Your task to perform on an android device: empty trash in the gmail app Image 0: 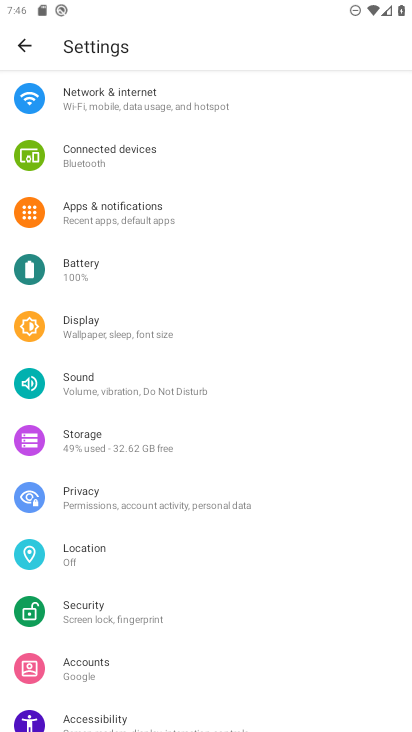
Step 0: press home button
Your task to perform on an android device: empty trash in the gmail app Image 1: 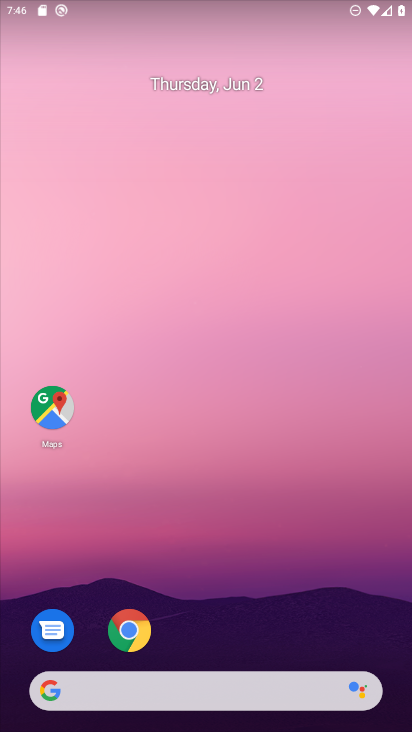
Step 1: drag from (148, 727) to (182, 75)
Your task to perform on an android device: empty trash in the gmail app Image 2: 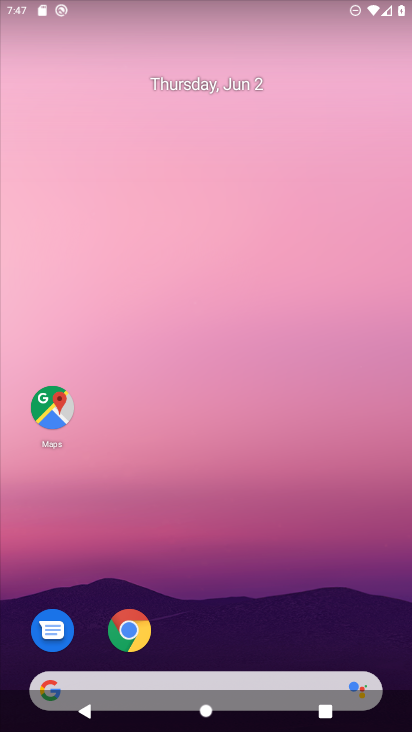
Step 2: drag from (133, 729) to (150, 2)
Your task to perform on an android device: empty trash in the gmail app Image 3: 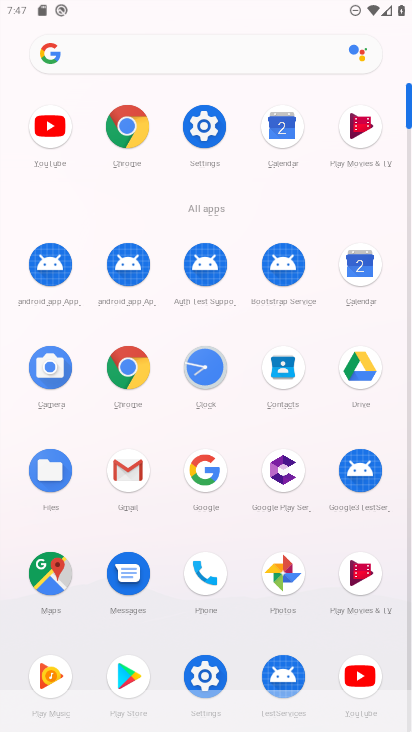
Step 3: click (117, 475)
Your task to perform on an android device: empty trash in the gmail app Image 4: 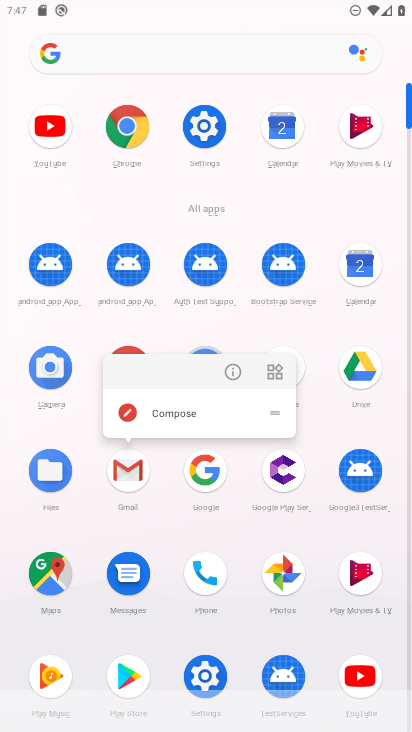
Step 4: click (117, 474)
Your task to perform on an android device: empty trash in the gmail app Image 5: 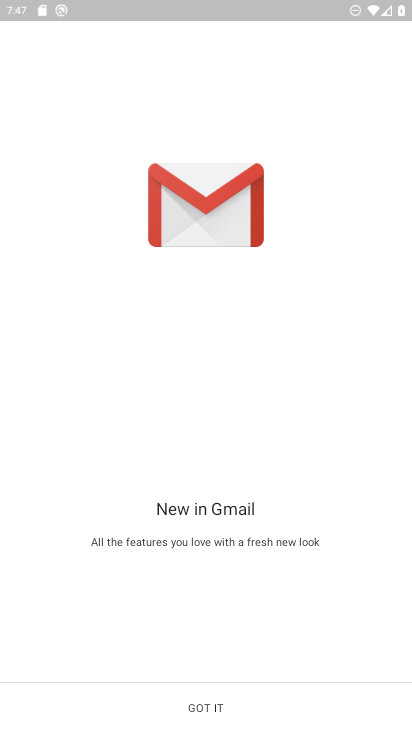
Step 5: click (192, 714)
Your task to perform on an android device: empty trash in the gmail app Image 6: 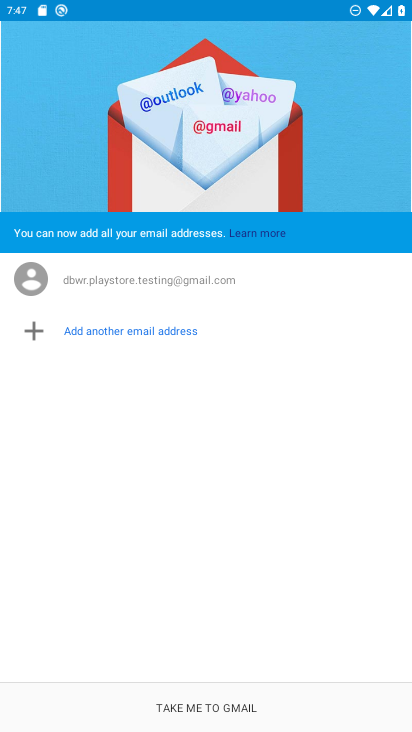
Step 6: click (232, 700)
Your task to perform on an android device: empty trash in the gmail app Image 7: 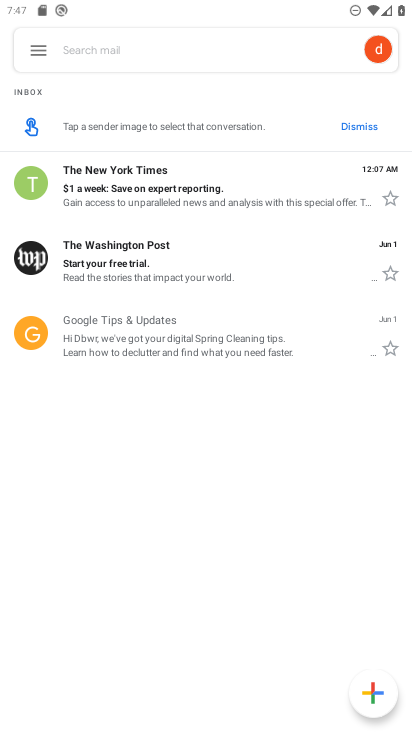
Step 7: click (41, 53)
Your task to perform on an android device: empty trash in the gmail app Image 8: 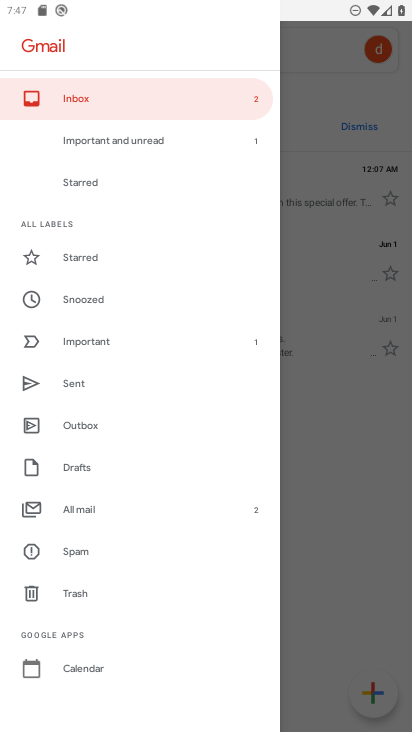
Step 8: click (80, 604)
Your task to perform on an android device: empty trash in the gmail app Image 9: 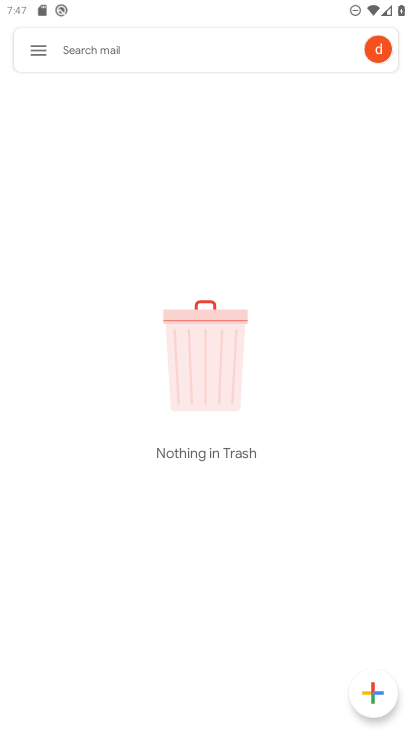
Step 9: task complete